Your task to perform on an android device: toggle priority inbox in the gmail app Image 0: 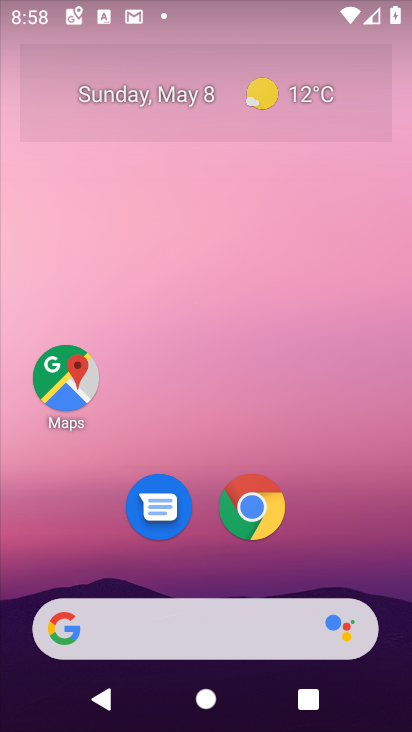
Step 0: drag from (244, 643) to (246, 93)
Your task to perform on an android device: toggle priority inbox in the gmail app Image 1: 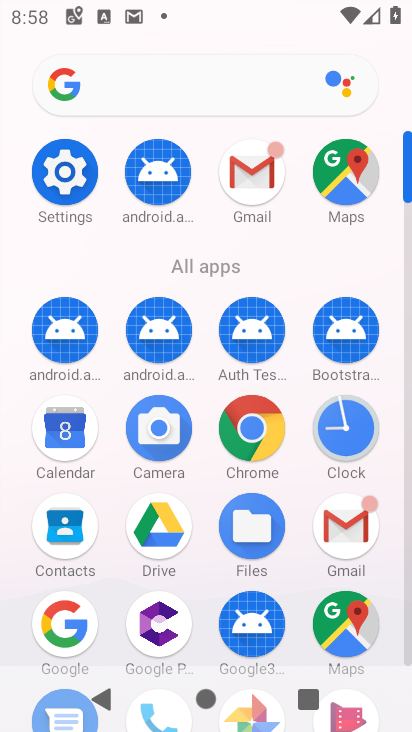
Step 1: click (348, 532)
Your task to perform on an android device: toggle priority inbox in the gmail app Image 2: 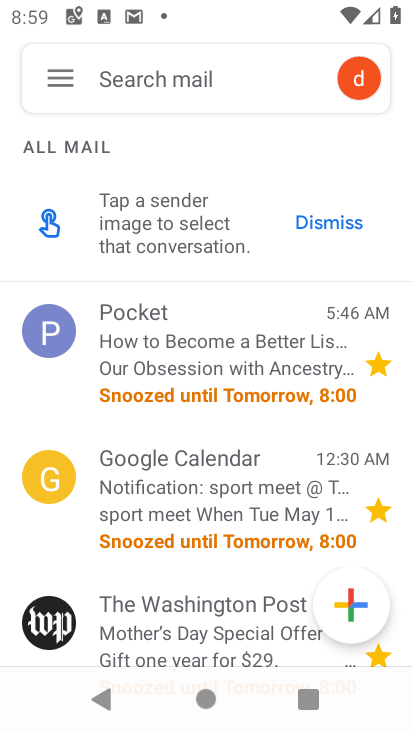
Step 2: click (50, 64)
Your task to perform on an android device: toggle priority inbox in the gmail app Image 3: 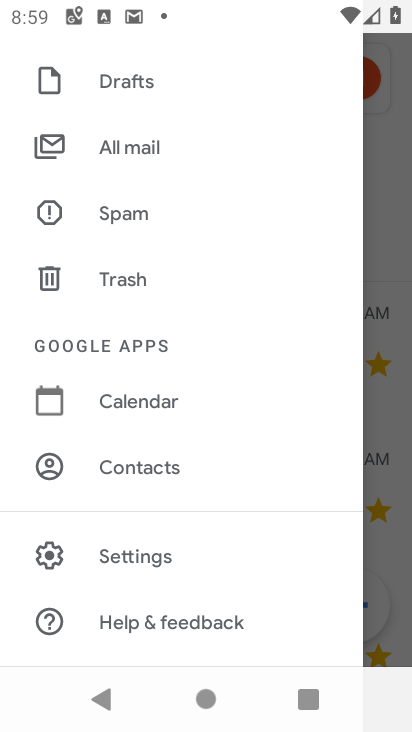
Step 3: click (146, 549)
Your task to perform on an android device: toggle priority inbox in the gmail app Image 4: 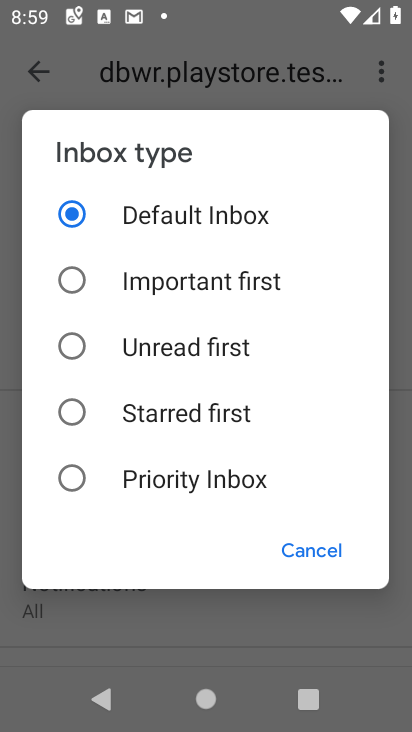
Step 4: click (147, 478)
Your task to perform on an android device: toggle priority inbox in the gmail app Image 5: 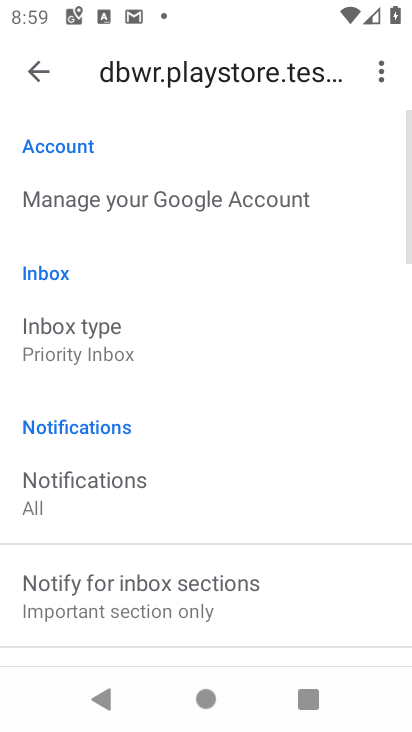
Step 5: task complete